Your task to perform on an android device: turn off location history Image 0: 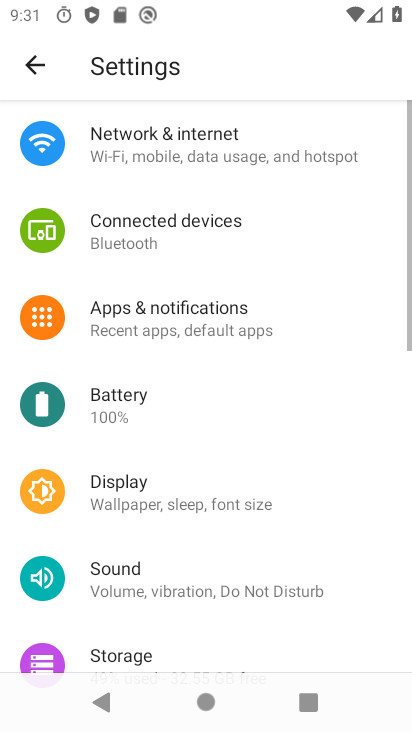
Step 0: press home button
Your task to perform on an android device: turn off location history Image 1: 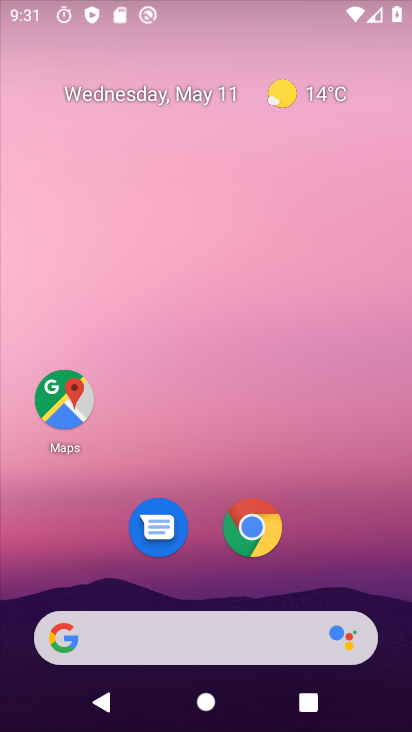
Step 1: drag from (231, 638) to (296, 98)
Your task to perform on an android device: turn off location history Image 2: 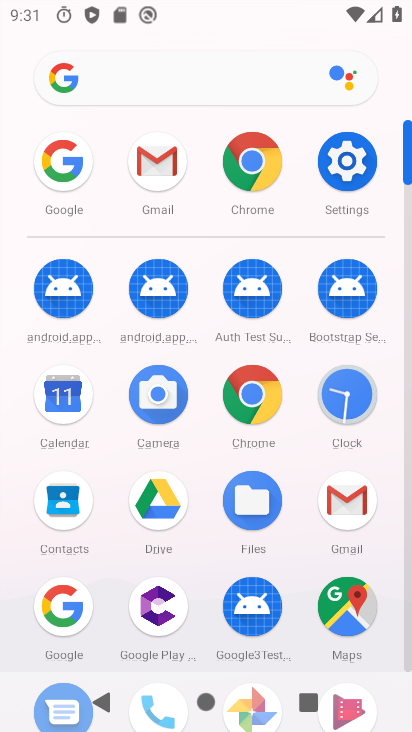
Step 2: click (345, 174)
Your task to perform on an android device: turn off location history Image 3: 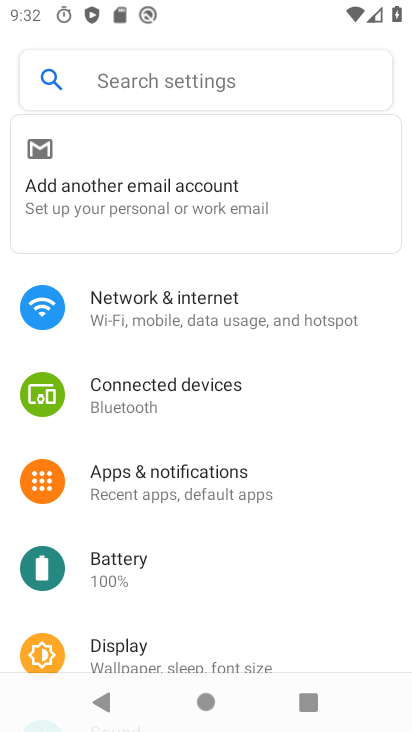
Step 3: drag from (151, 539) to (160, 244)
Your task to perform on an android device: turn off location history Image 4: 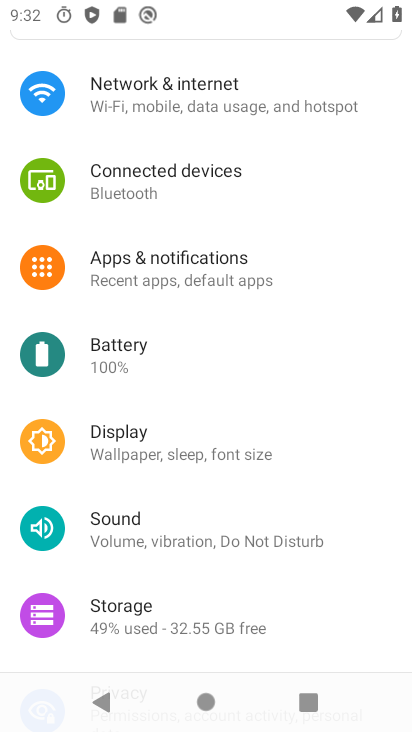
Step 4: drag from (158, 507) to (163, 285)
Your task to perform on an android device: turn off location history Image 5: 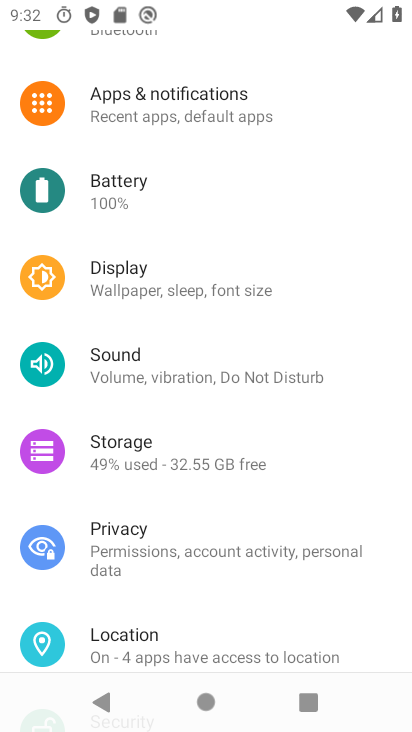
Step 5: click (198, 661)
Your task to perform on an android device: turn off location history Image 6: 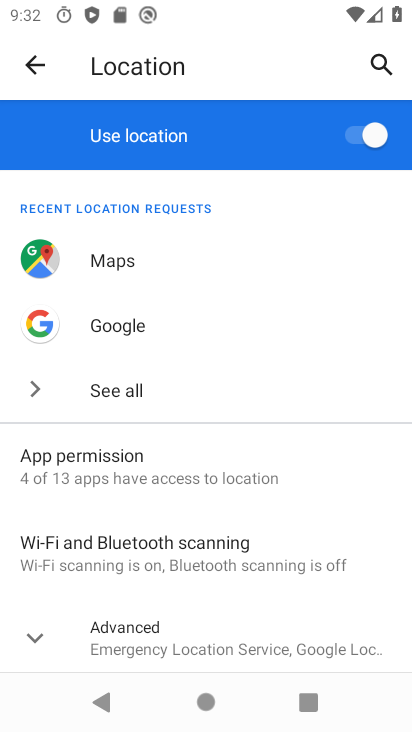
Step 6: click (175, 634)
Your task to perform on an android device: turn off location history Image 7: 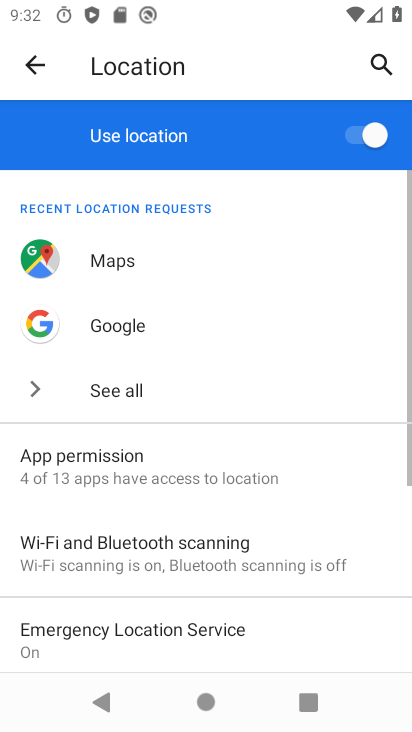
Step 7: drag from (209, 534) to (218, 292)
Your task to perform on an android device: turn off location history Image 8: 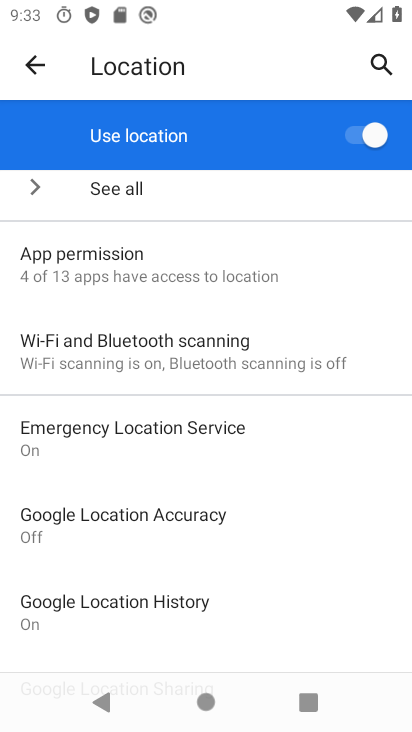
Step 8: click (227, 597)
Your task to perform on an android device: turn off location history Image 9: 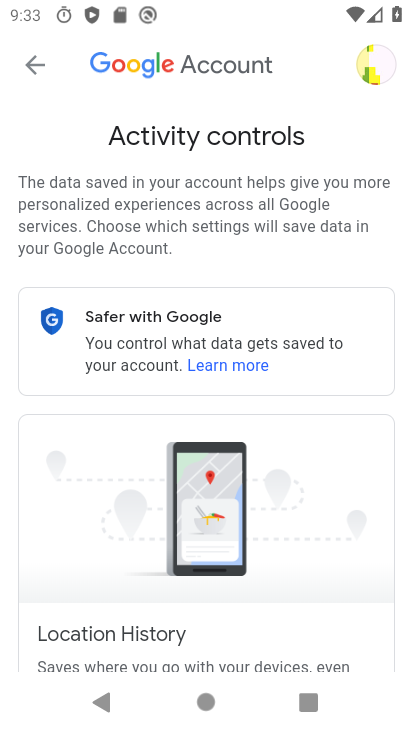
Step 9: drag from (192, 582) to (203, 174)
Your task to perform on an android device: turn off location history Image 10: 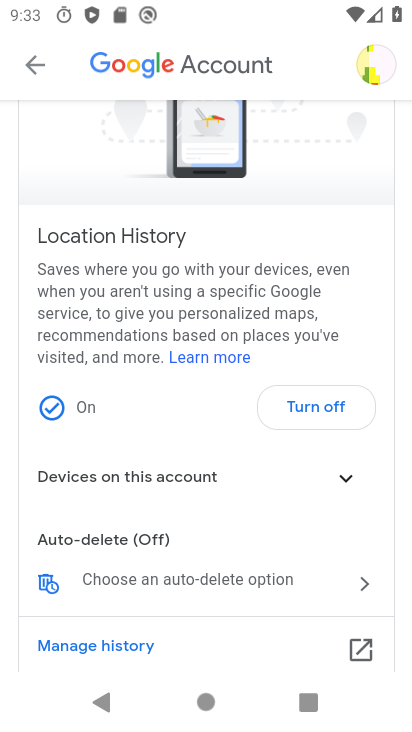
Step 10: click (307, 417)
Your task to perform on an android device: turn off location history Image 11: 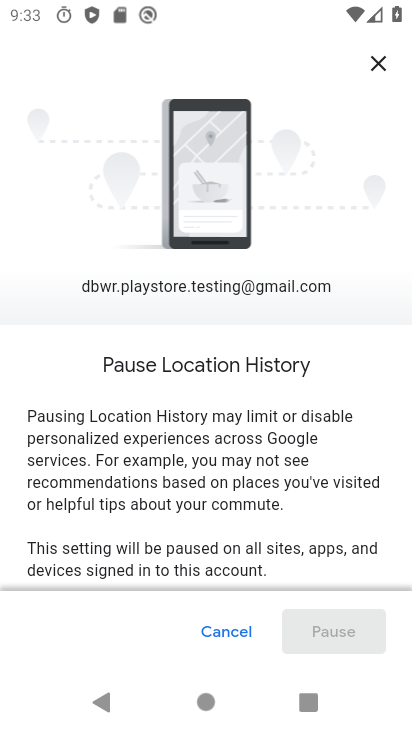
Step 11: drag from (301, 424) to (318, 12)
Your task to perform on an android device: turn off location history Image 12: 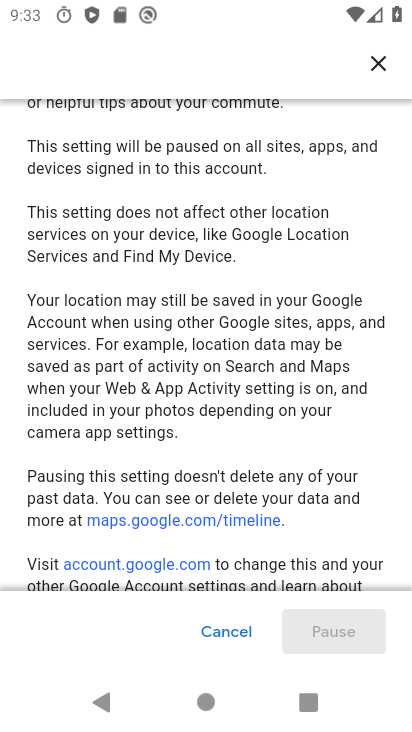
Step 12: drag from (257, 523) to (249, 61)
Your task to perform on an android device: turn off location history Image 13: 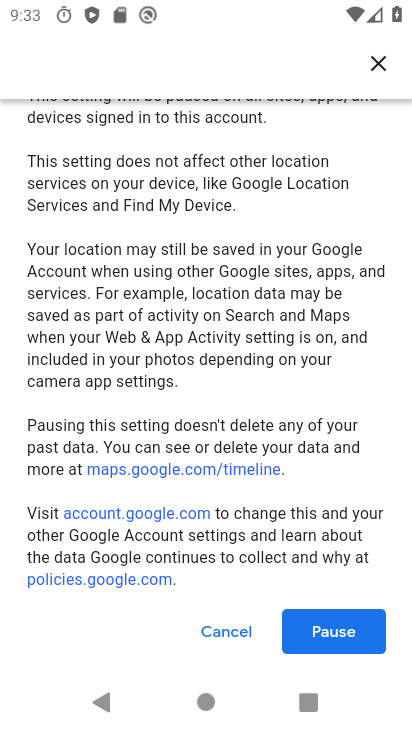
Step 13: click (329, 673)
Your task to perform on an android device: turn off location history Image 14: 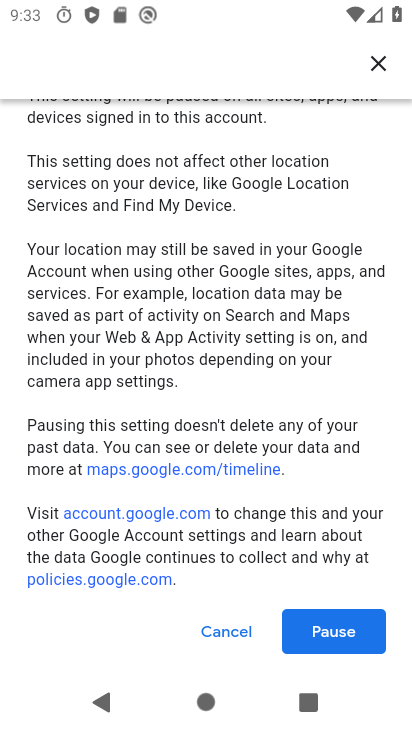
Step 14: click (343, 644)
Your task to perform on an android device: turn off location history Image 15: 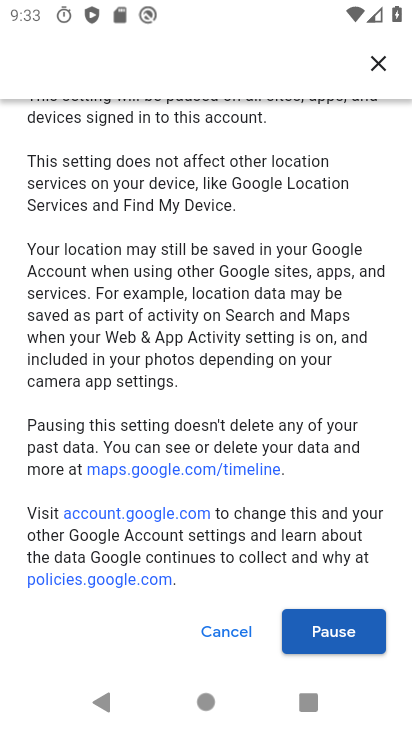
Step 15: click (326, 637)
Your task to perform on an android device: turn off location history Image 16: 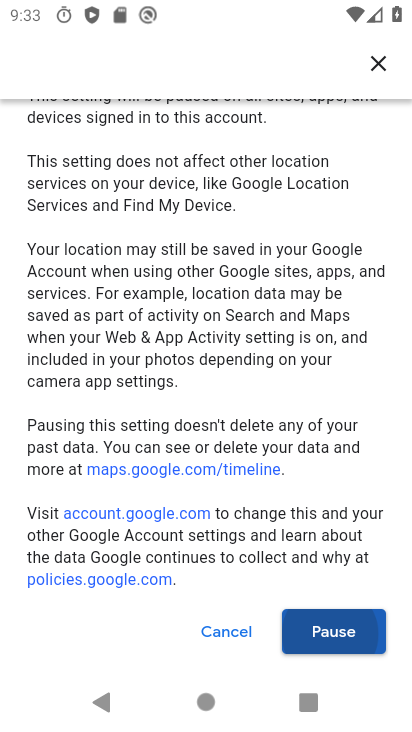
Step 16: click (326, 637)
Your task to perform on an android device: turn off location history Image 17: 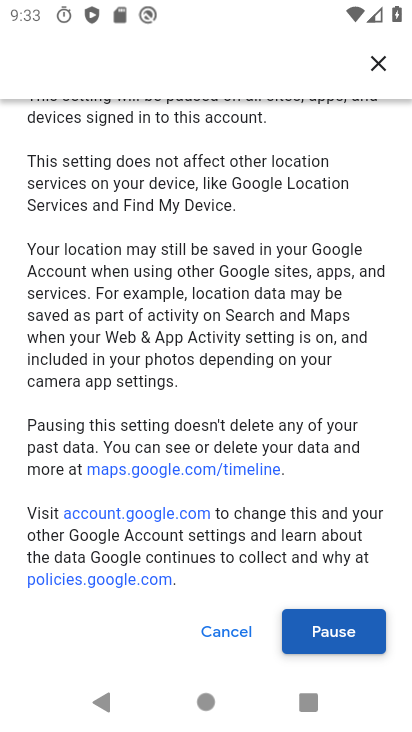
Step 17: click (326, 636)
Your task to perform on an android device: turn off location history Image 18: 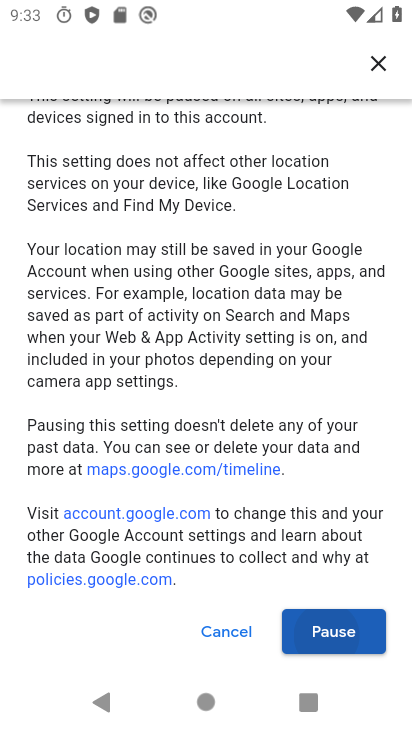
Step 18: click (326, 635)
Your task to perform on an android device: turn off location history Image 19: 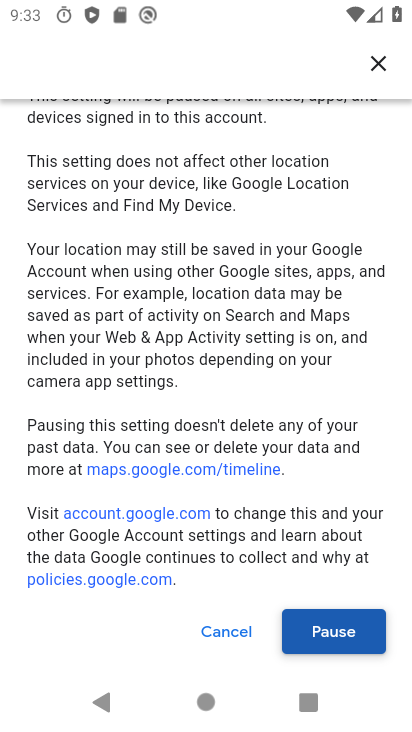
Step 19: click (326, 635)
Your task to perform on an android device: turn off location history Image 20: 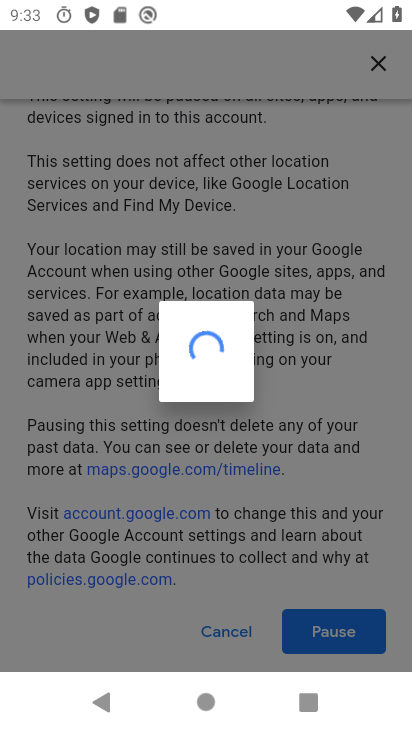
Step 20: click (326, 635)
Your task to perform on an android device: turn off location history Image 21: 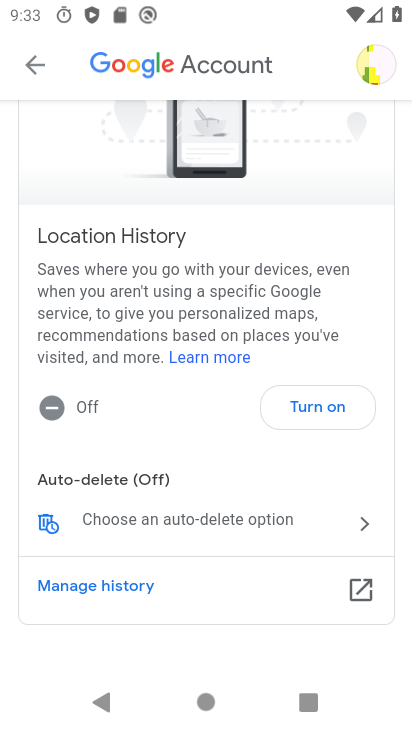
Step 21: task complete